Your task to perform on an android device: Go to battery settings Image 0: 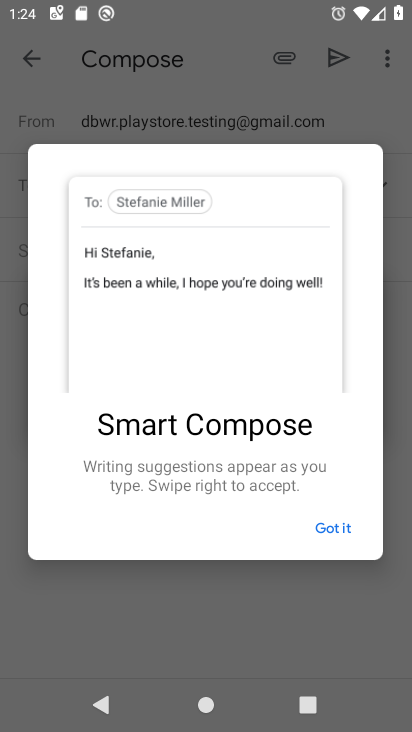
Step 0: press home button
Your task to perform on an android device: Go to battery settings Image 1: 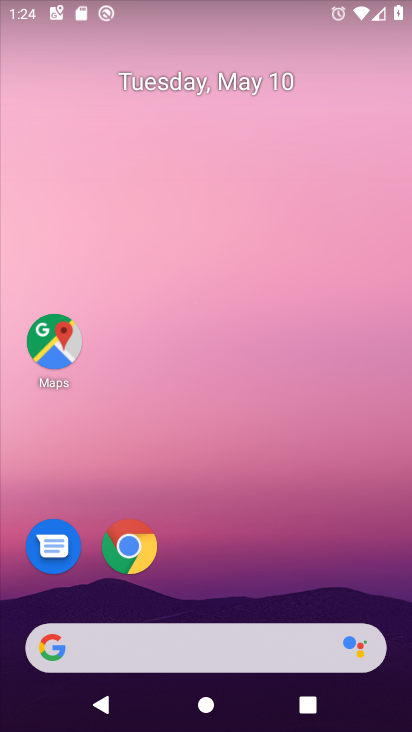
Step 1: drag from (285, 597) to (272, 1)
Your task to perform on an android device: Go to battery settings Image 2: 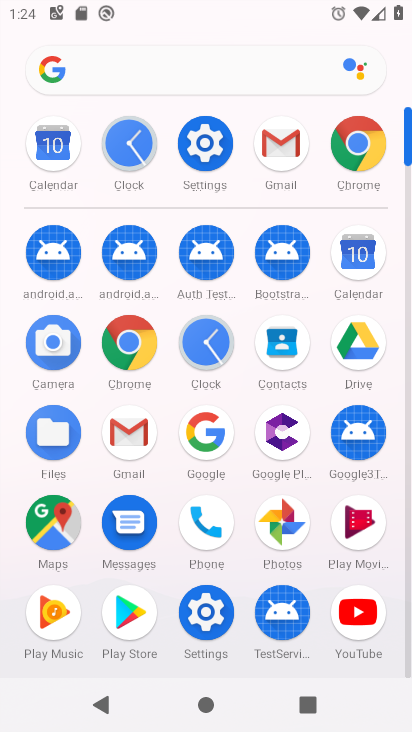
Step 2: click (215, 157)
Your task to perform on an android device: Go to battery settings Image 3: 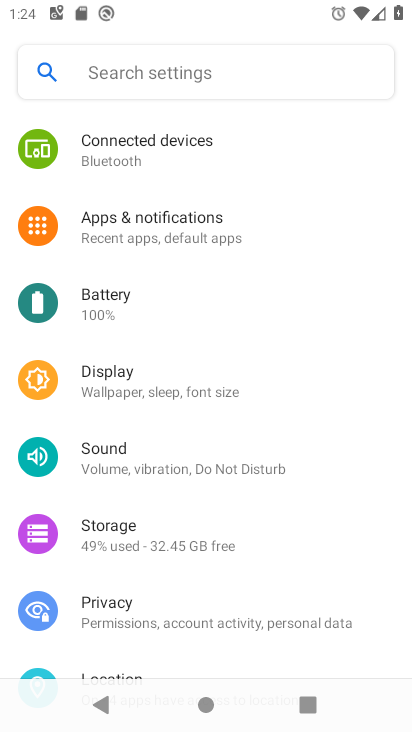
Step 3: click (177, 306)
Your task to perform on an android device: Go to battery settings Image 4: 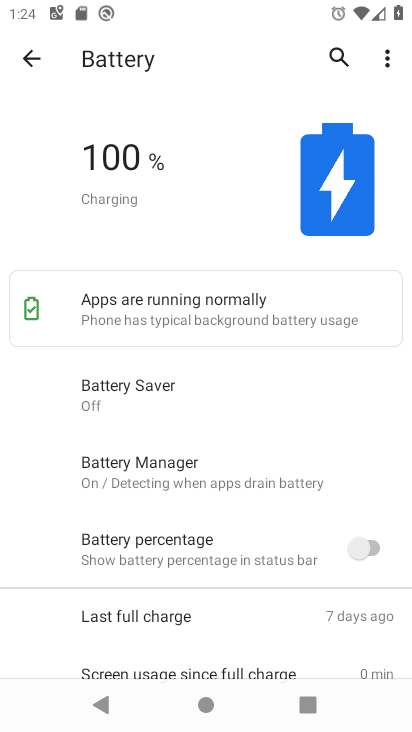
Step 4: task complete